Your task to perform on an android device: Open the phone app and click the voicemail tab. Image 0: 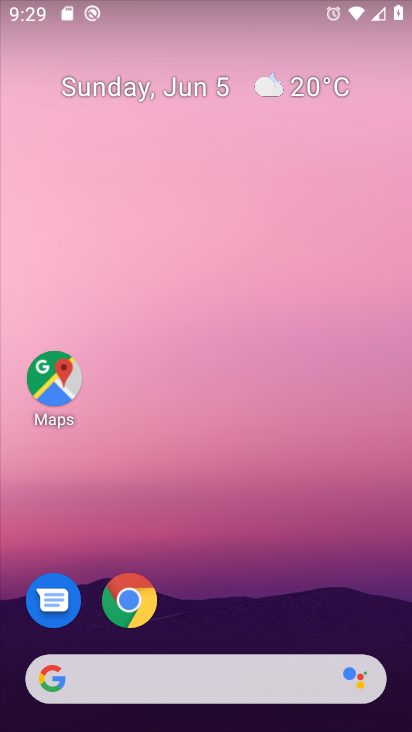
Step 0: drag from (230, 535) to (221, 32)
Your task to perform on an android device: Open the phone app and click the voicemail tab. Image 1: 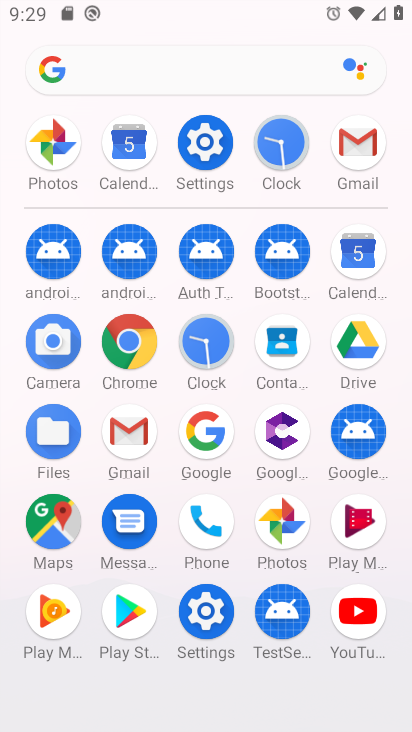
Step 1: click (211, 521)
Your task to perform on an android device: Open the phone app and click the voicemail tab. Image 2: 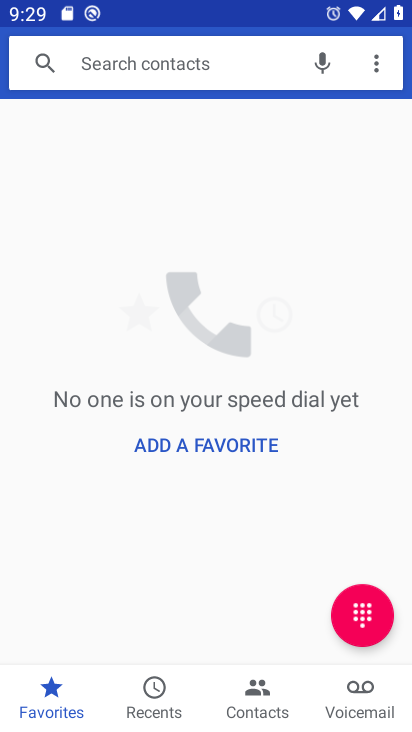
Step 2: click (356, 686)
Your task to perform on an android device: Open the phone app and click the voicemail tab. Image 3: 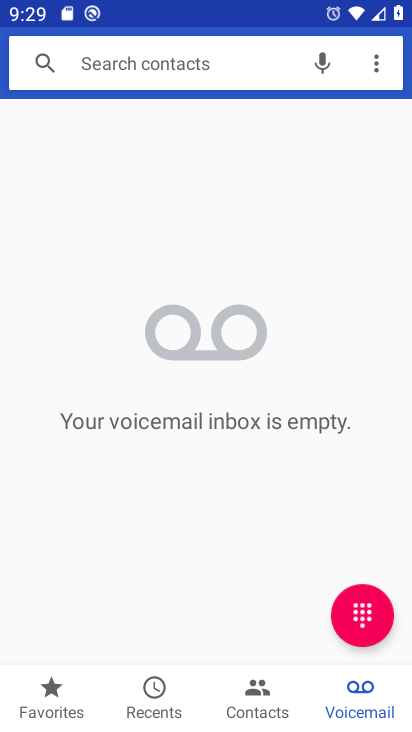
Step 3: task complete